Your task to perform on an android device: Open Yahoo.com Image 0: 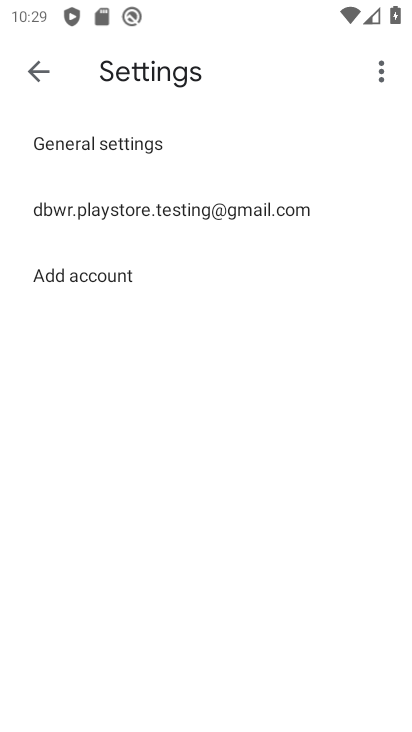
Step 0: press home button
Your task to perform on an android device: Open Yahoo.com Image 1: 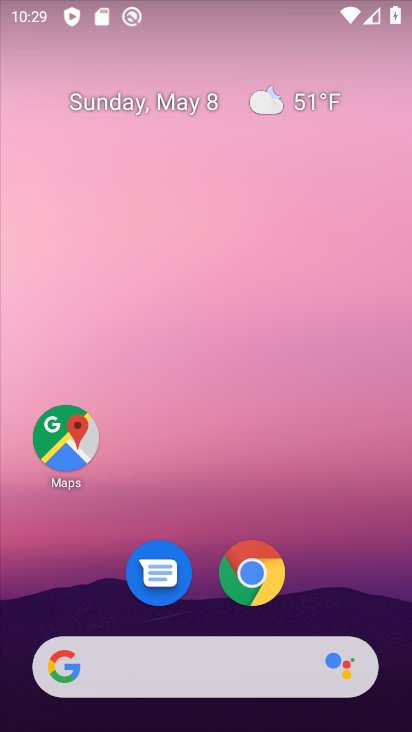
Step 1: click (253, 574)
Your task to perform on an android device: Open Yahoo.com Image 2: 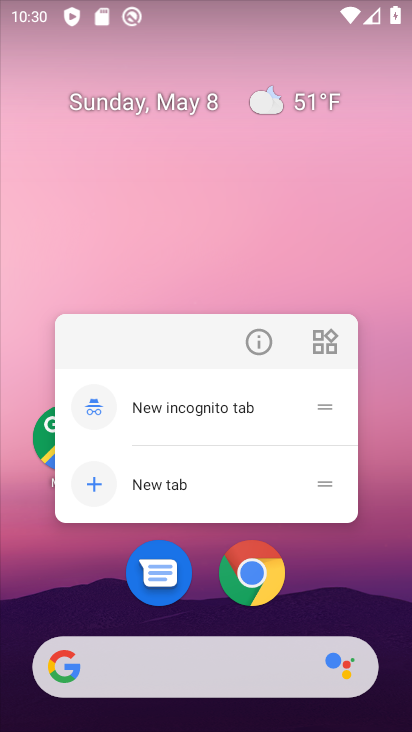
Step 2: click (253, 574)
Your task to perform on an android device: Open Yahoo.com Image 3: 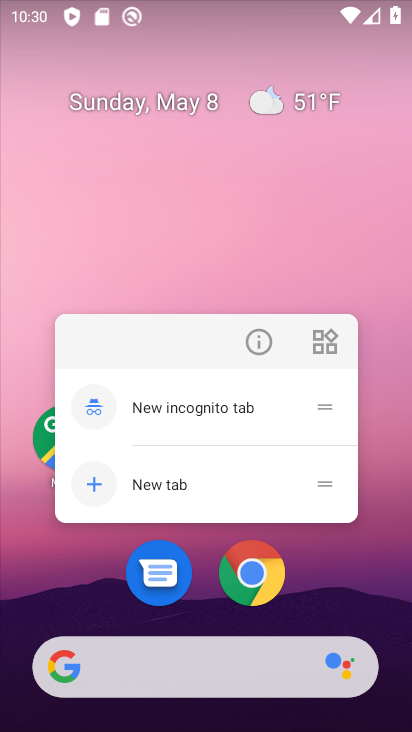
Step 3: click (244, 585)
Your task to perform on an android device: Open Yahoo.com Image 4: 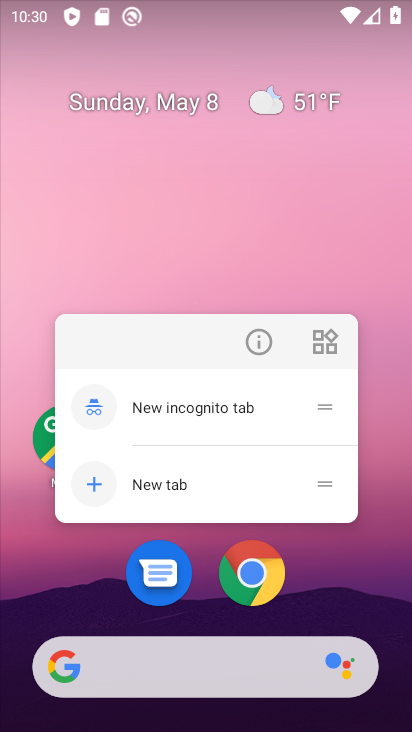
Step 4: click (244, 573)
Your task to perform on an android device: Open Yahoo.com Image 5: 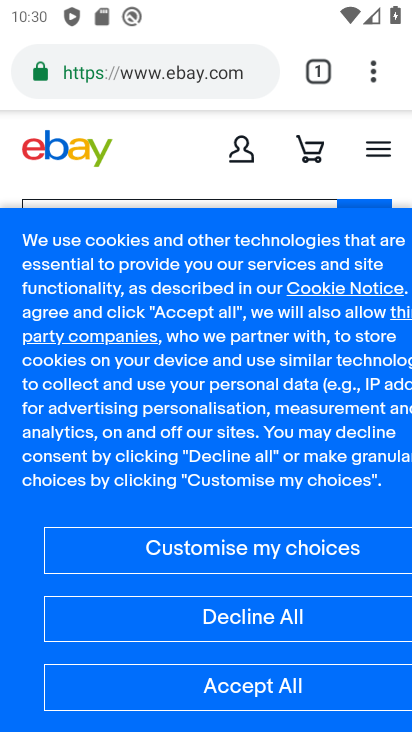
Step 5: click (319, 74)
Your task to perform on an android device: Open Yahoo.com Image 6: 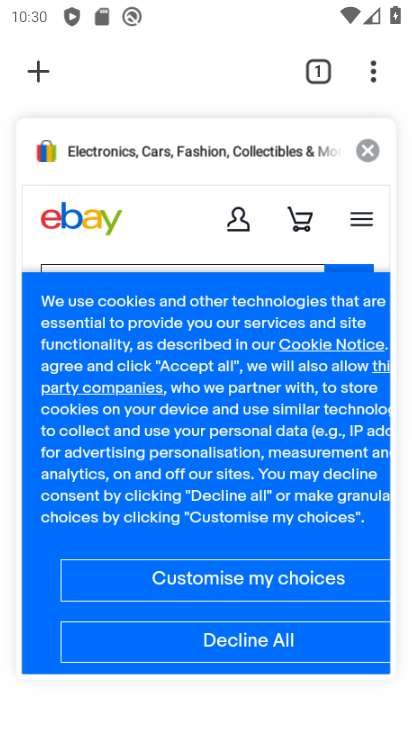
Step 6: click (372, 147)
Your task to perform on an android device: Open Yahoo.com Image 7: 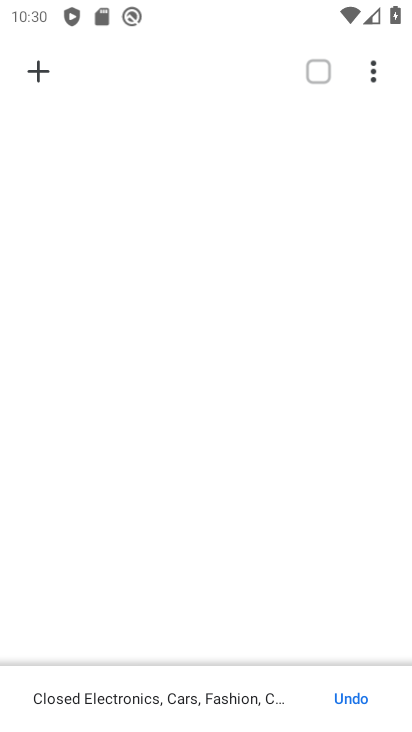
Step 7: click (40, 79)
Your task to perform on an android device: Open Yahoo.com Image 8: 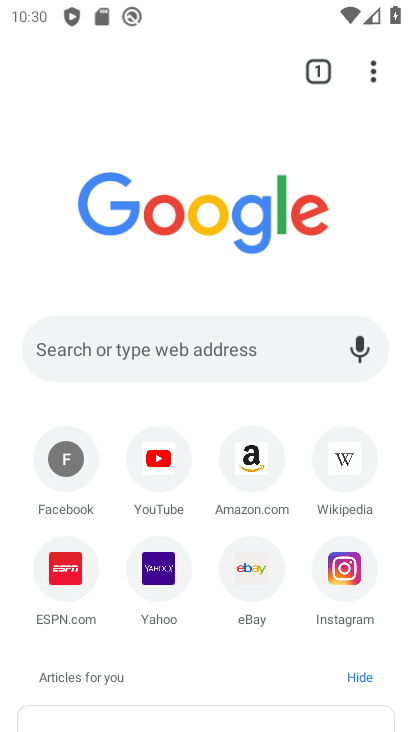
Step 8: click (153, 580)
Your task to perform on an android device: Open Yahoo.com Image 9: 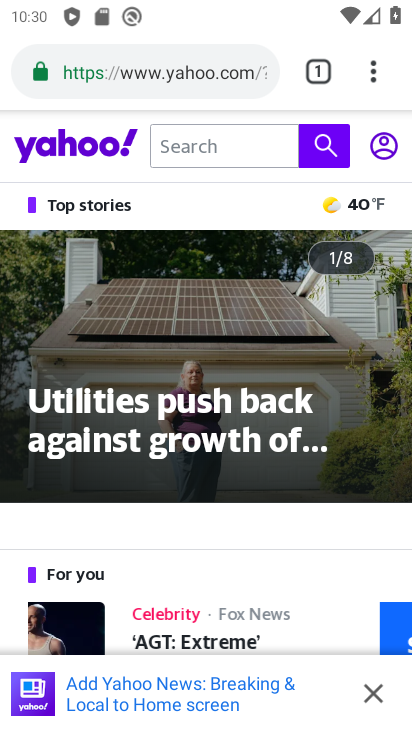
Step 9: task complete